Your task to perform on an android device: change alarm snooze length Image 0: 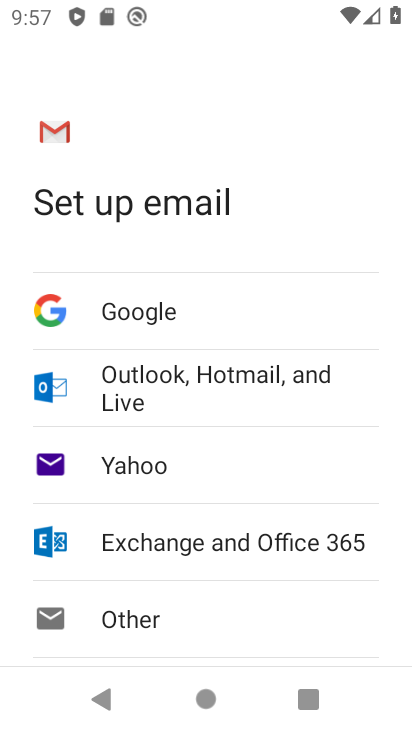
Step 0: press home button
Your task to perform on an android device: change alarm snooze length Image 1: 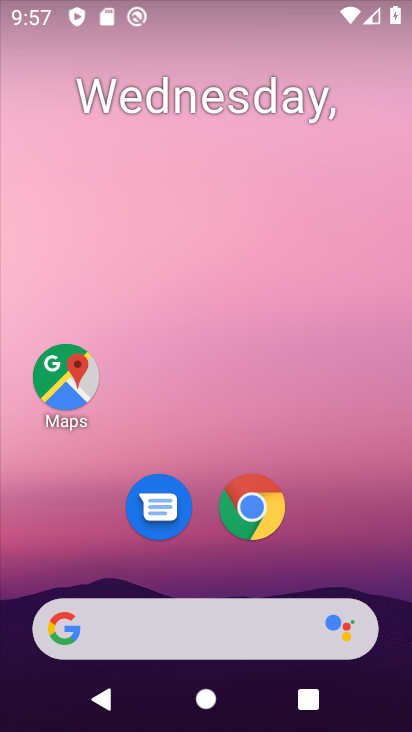
Step 1: drag from (286, 628) to (367, 376)
Your task to perform on an android device: change alarm snooze length Image 2: 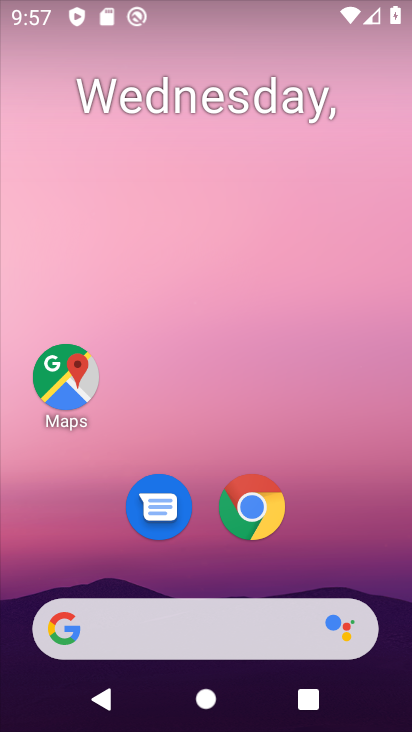
Step 2: drag from (220, 655) to (295, 227)
Your task to perform on an android device: change alarm snooze length Image 3: 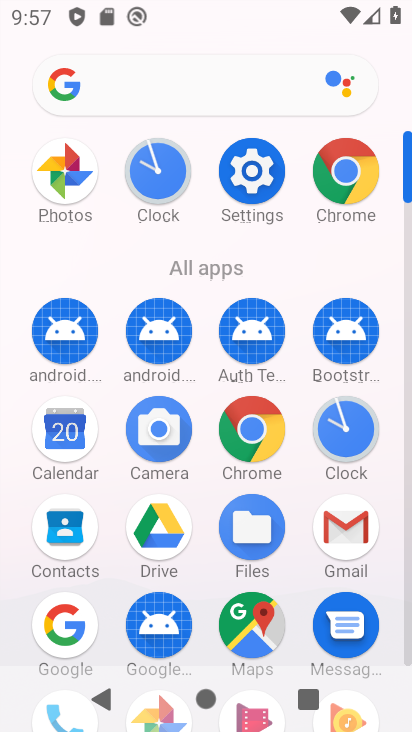
Step 3: click (161, 198)
Your task to perform on an android device: change alarm snooze length Image 4: 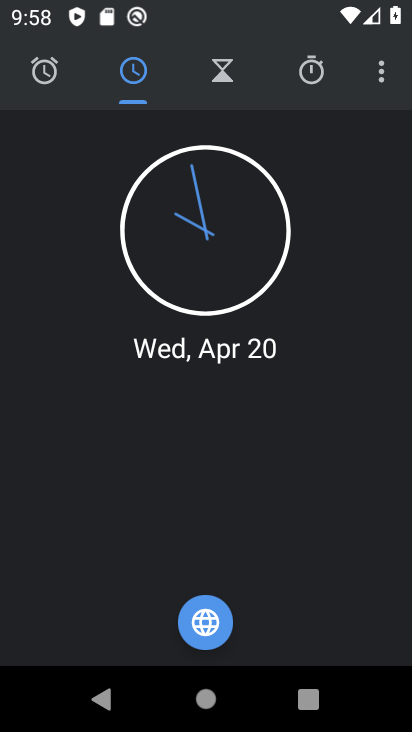
Step 4: click (369, 64)
Your task to perform on an android device: change alarm snooze length Image 5: 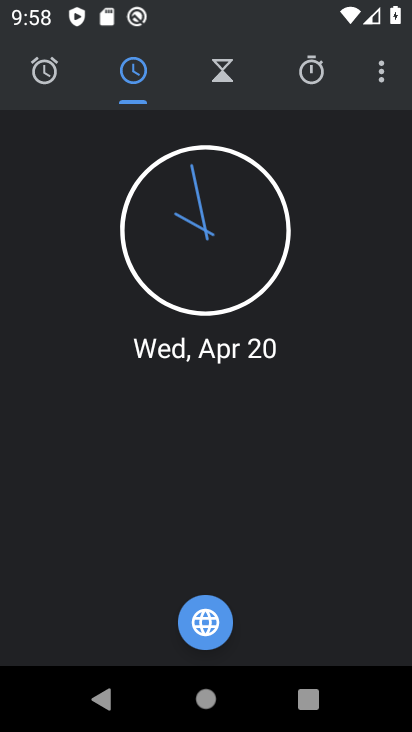
Step 5: click (376, 74)
Your task to perform on an android device: change alarm snooze length Image 6: 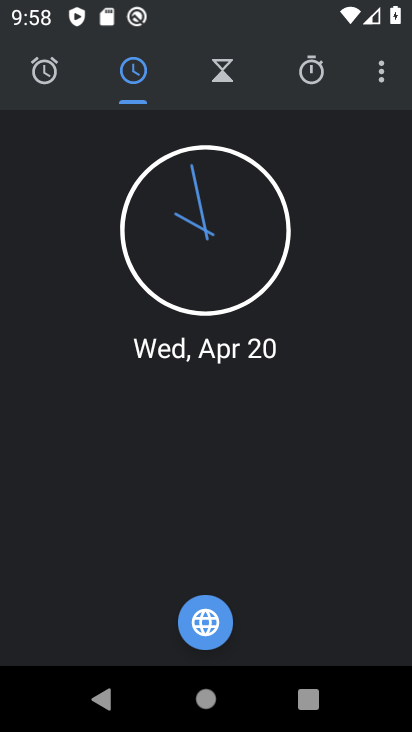
Step 6: click (370, 84)
Your task to perform on an android device: change alarm snooze length Image 7: 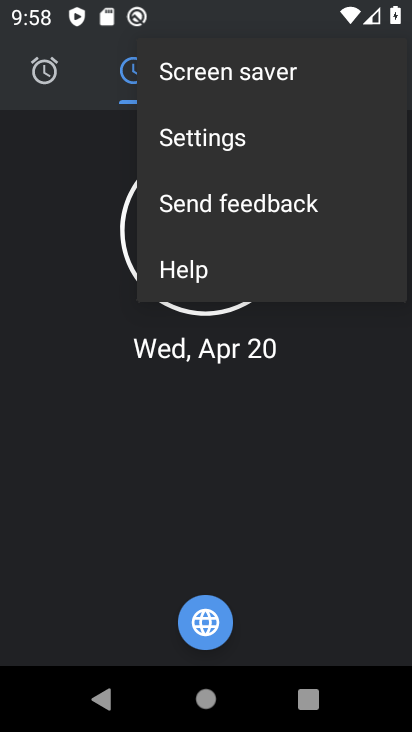
Step 7: click (245, 136)
Your task to perform on an android device: change alarm snooze length Image 8: 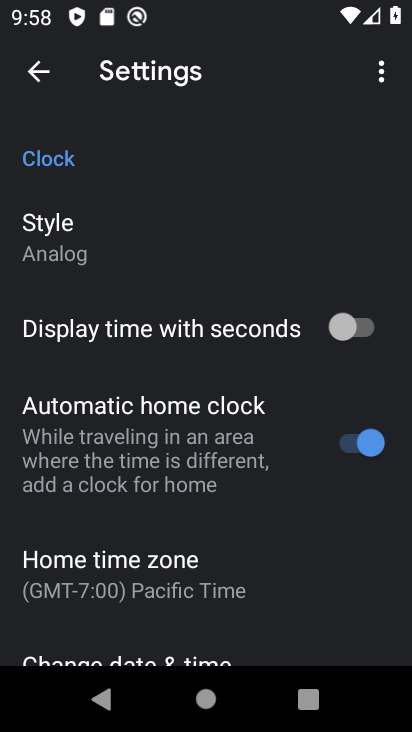
Step 8: drag from (79, 489) to (125, 257)
Your task to perform on an android device: change alarm snooze length Image 9: 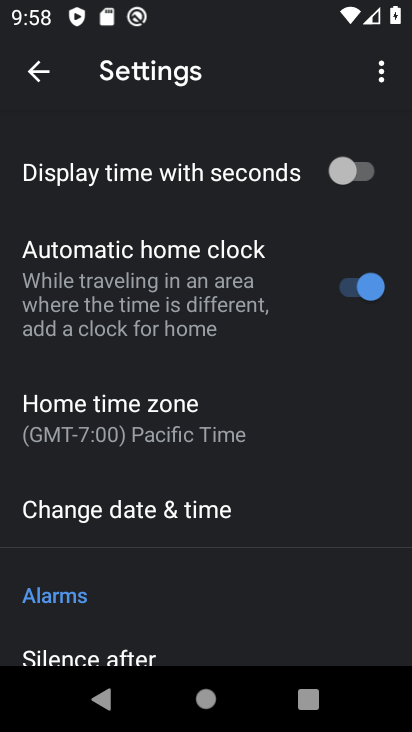
Step 9: drag from (135, 604) to (149, 391)
Your task to perform on an android device: change alarm snooze length Image 10: 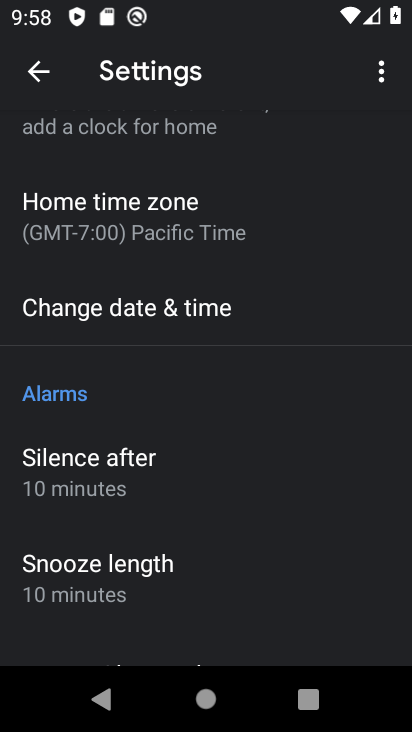
Step 10: click (95, 557)
Your task to perform on an android device: change alarm snooze length Image 11: 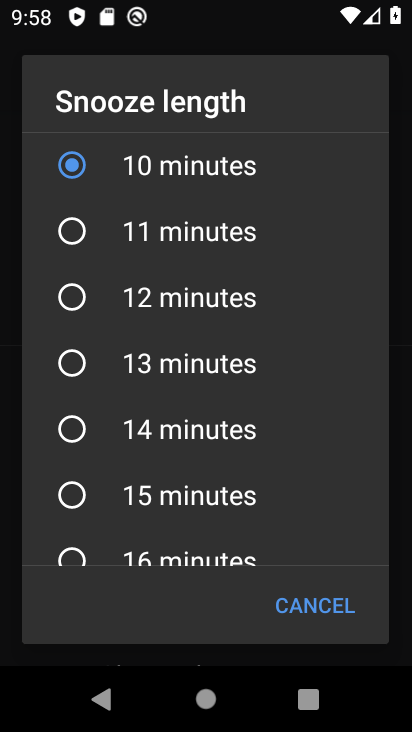
Step 11: click (162, 290)
Your task to perform on an android device: change alarm snooze length Image 12: 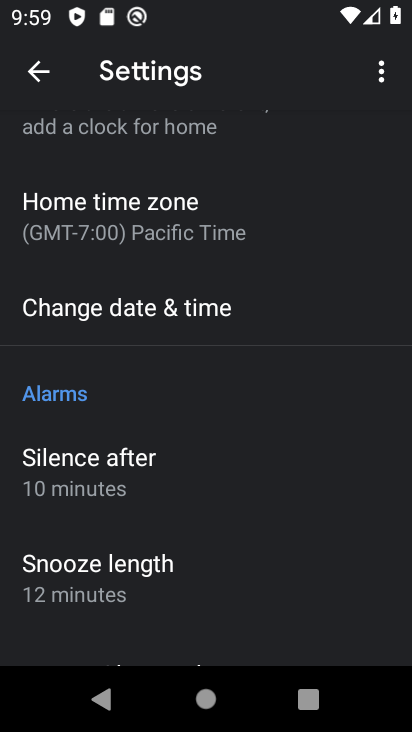
Step 12: task complete